Your task to perform on an android device: toggle translation in the chrome app Image 0: 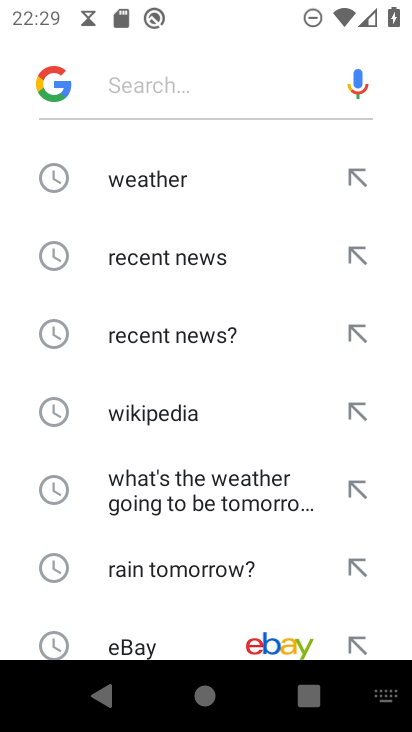
Step 0: press home button
Your task to perform on an android device: toggle translation in the chrome app Image 1: 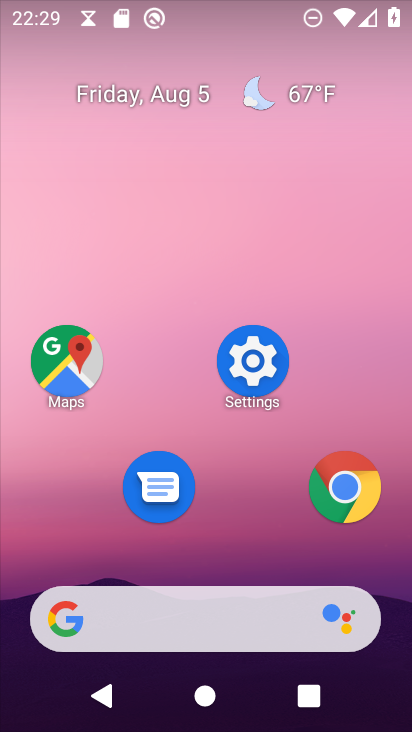
Step 1: click (343, 485)
Your task to perform on an android device: toggle translation in the chrome app Image 2: 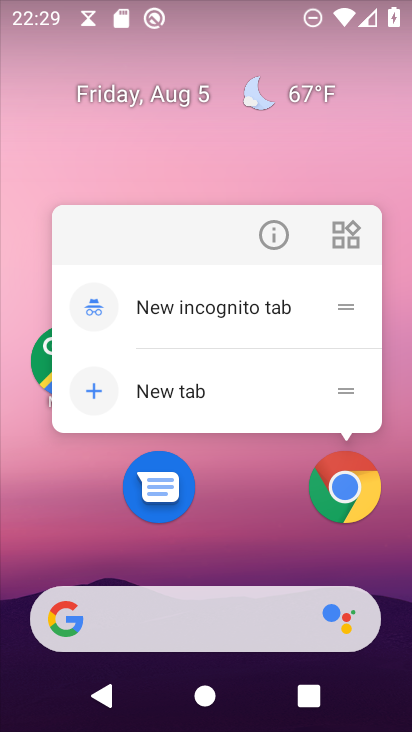
Step 2: click (342, 485)
Your task to perform on an android device: toggle translation in the chrome app Image 3: 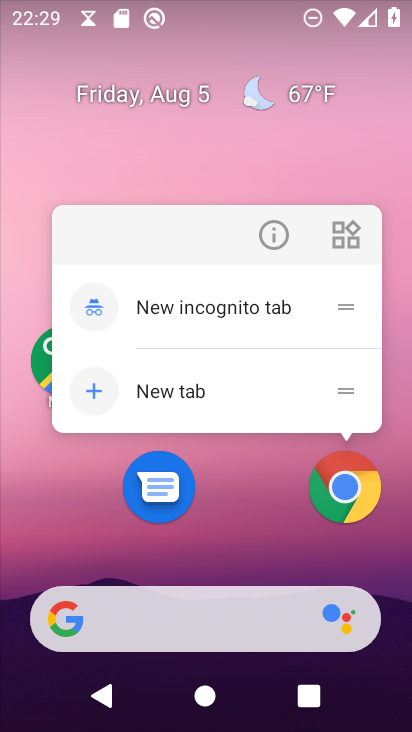
Step 3: click (343, 488)
Your task to perform on an android device: toggle translation in the chrome app Image 4: 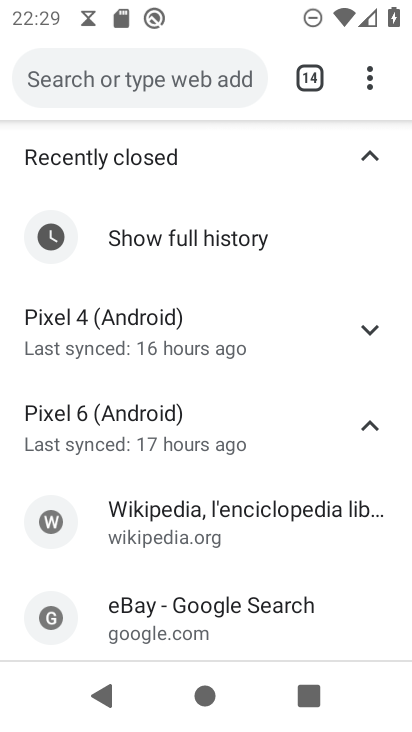
Step 4: drag from (370, 82) to (224, 560)
Your task to perform on an android device: toggle translation in the chrome app Image 5: 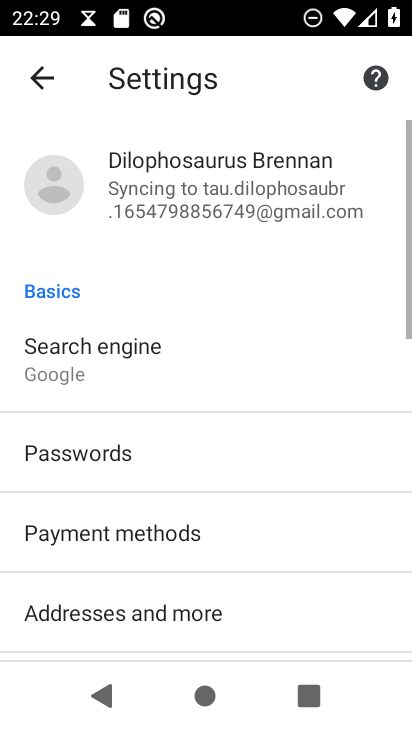
Step 5: drag from (258, 632) to (309, 103)
Your task to perform on an android device: toggle translation in the chrome app Image 6: 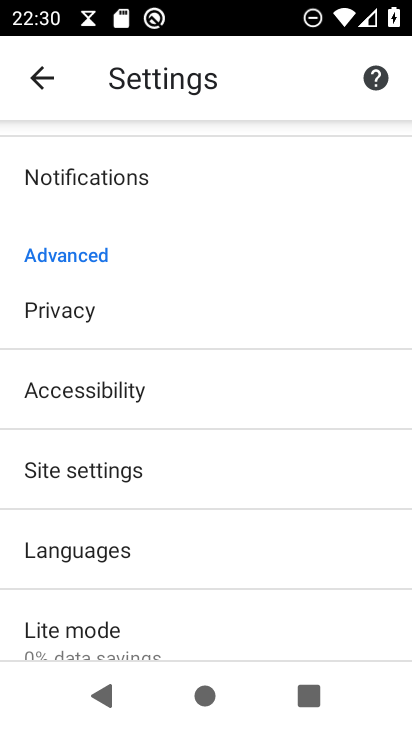
Step 6: click (111, 543)
Your task to perform on an android device: toggle translation in the chrome app Image 7: 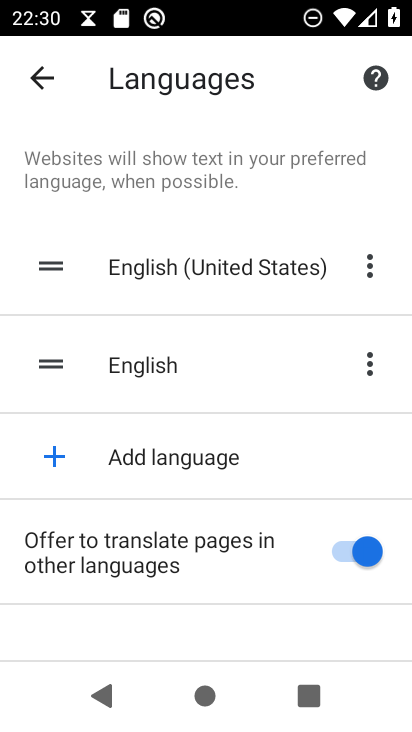
Step 7: drag from (266, 519) to (326, 203)
Your task to perform on an android device: toggle translation in the chrome app Image 8: 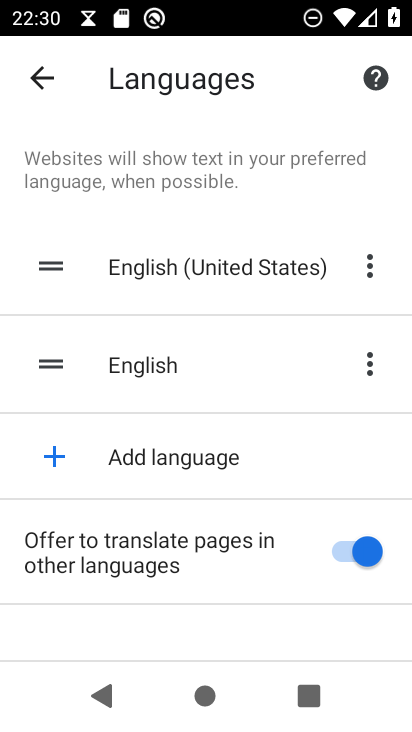
Step 8: click (340, 549)
Your task to perform on an android device: toggle translation in the chrome app Image 9: 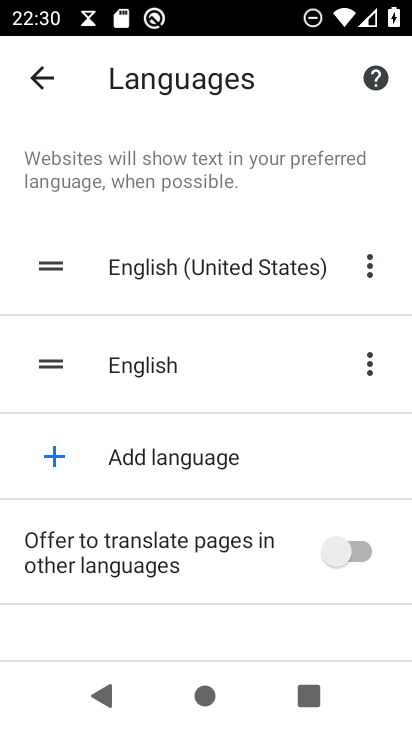
Step 9: task complete